Your task to perform on an android device: turn notification dots off Image 0: 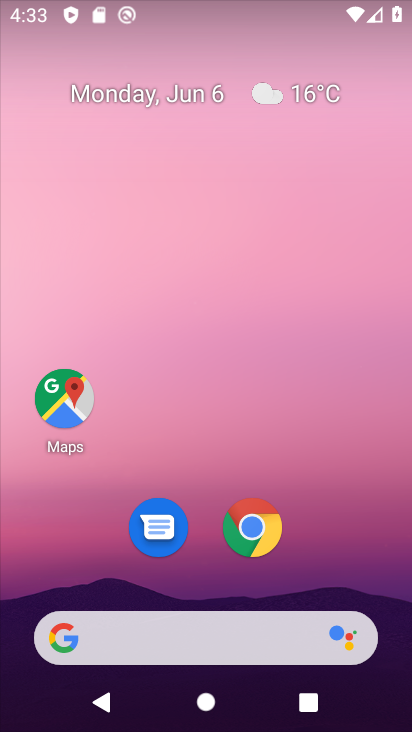
Step 0: drag from (385, 666) to (406, 151)
Your task to perform on an android device: turn notification dots off Image 1: 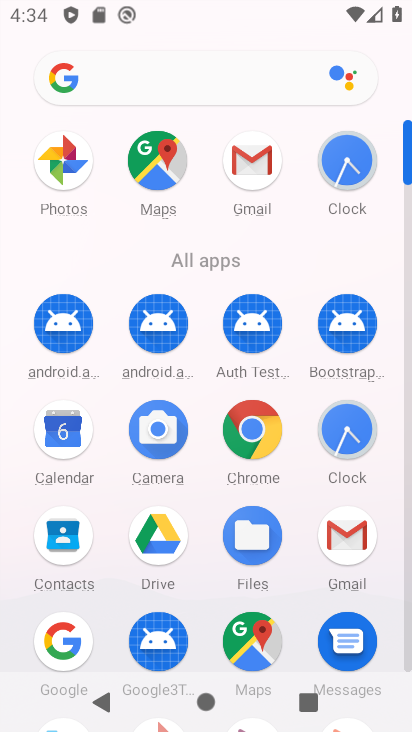
Step 1: drag from (139, 223) to (2, 211)
Your task to perform on an android device: turn notification dots off Image 2: 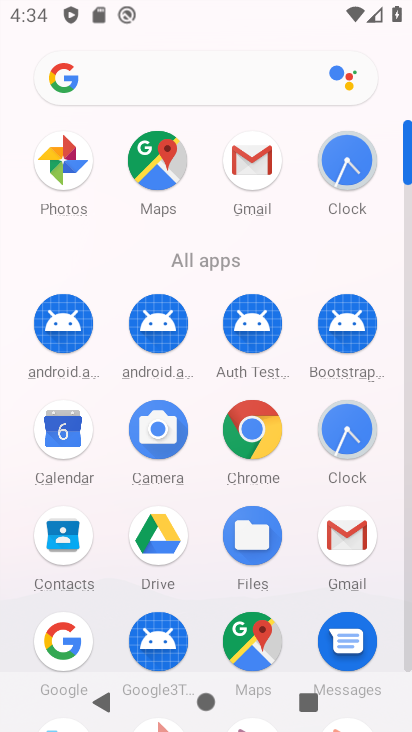
Step 2: drag from (194, 636) to (231, 245)
Your task to perform on an android device: turn notification dots off Image 3: 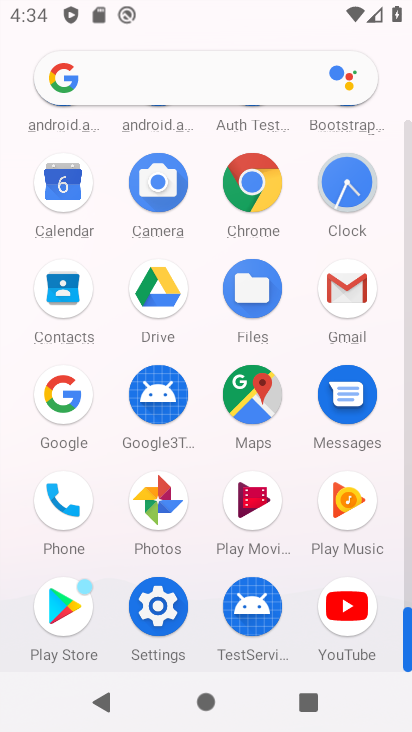
Step 3: click (144, 595)
Your task to perform on an android device: turn notification dots off Image 4: 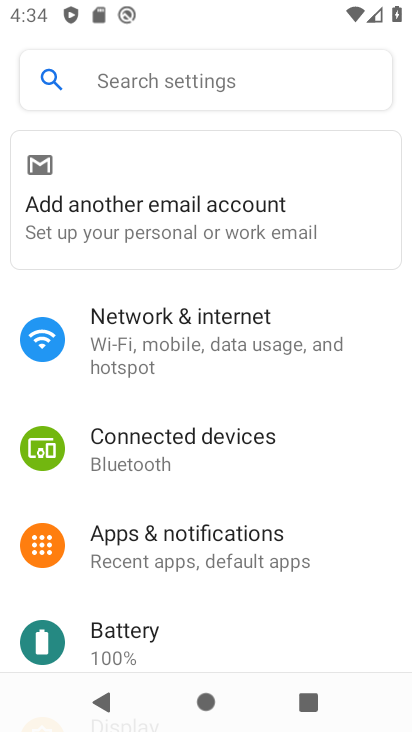
Step 4: click (194, 544)
Your task to perform on an android device: turn notification dots off Image 5: 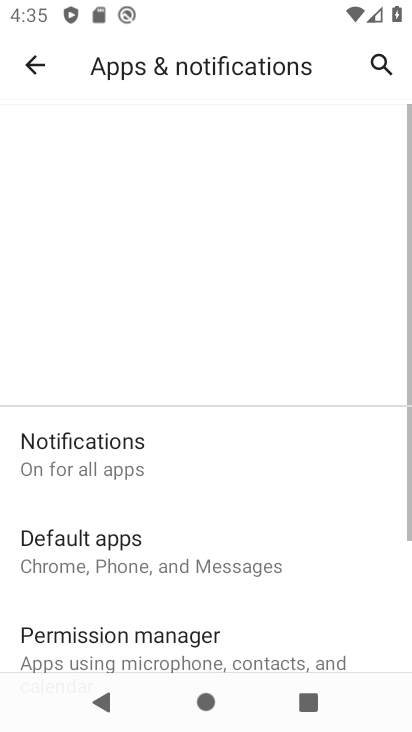
Step 5: click (122, 442)
Your task to perform on an android device: turn notification dots off Image 6: 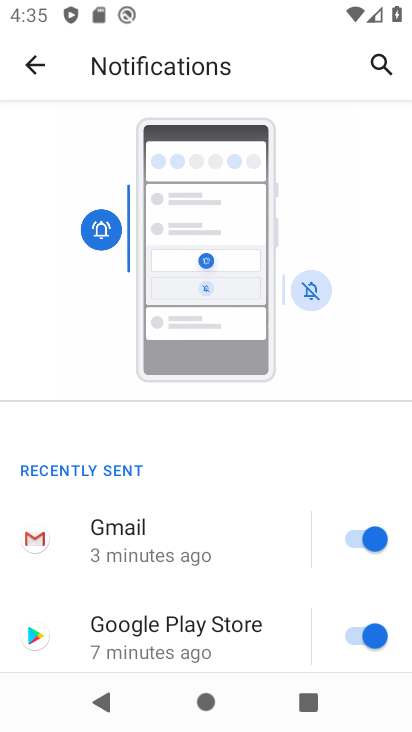
Step 6: drag from (265, 649) to (221, 206)
Your task to perform on an android device: turn notification dots off Image 7: 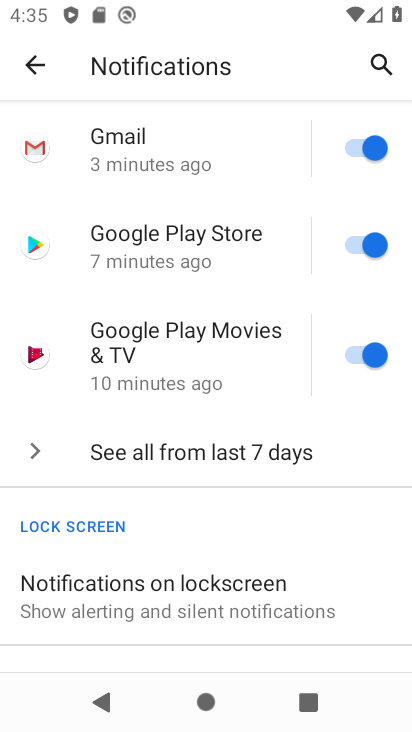
Step 7: drag from (139, 593) to (139, 289)
Your task to perform on an android device: turn notification dots off Image 8: 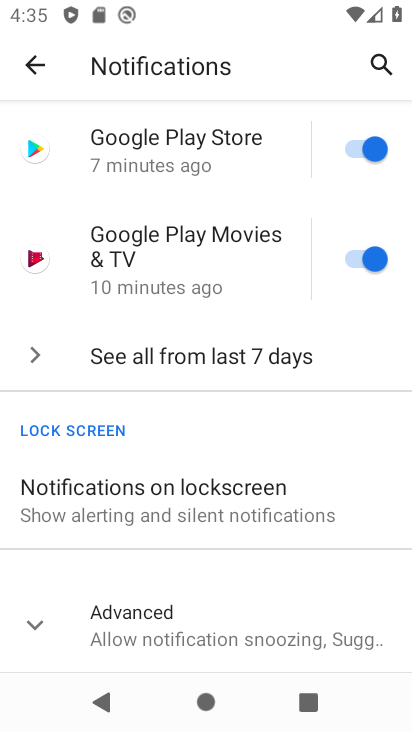
Step 8: click (40, 625)
Your task to perform on an android device: turn notification dots off Image 9: 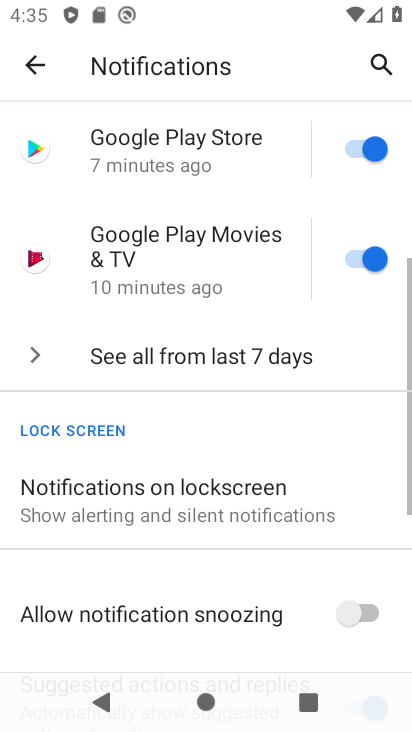
Step 9: drag from (260, 641) to (275, 232)
Your task to perform on an android device: turn notification dots off Image 10: 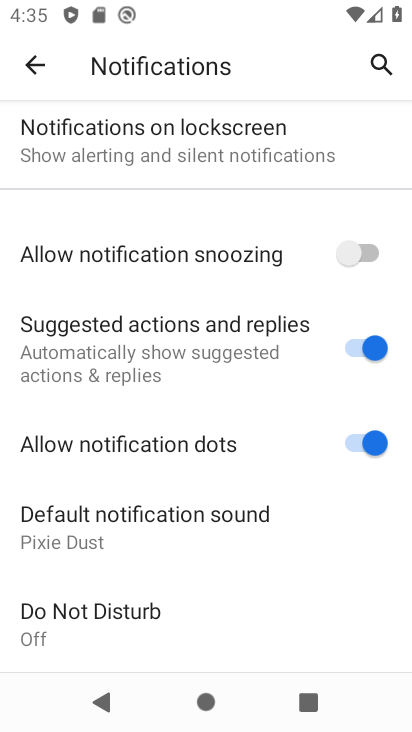
Step 10: click (342, 440)
Your task to perform on an android device: turn notification dots off Image 11: 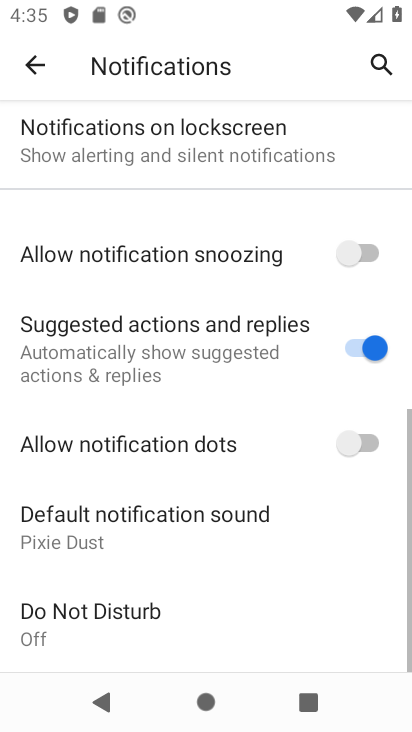
Step 11: task complete